Your task to perform on an android device: toggle data saver in the chrome app Image 0: 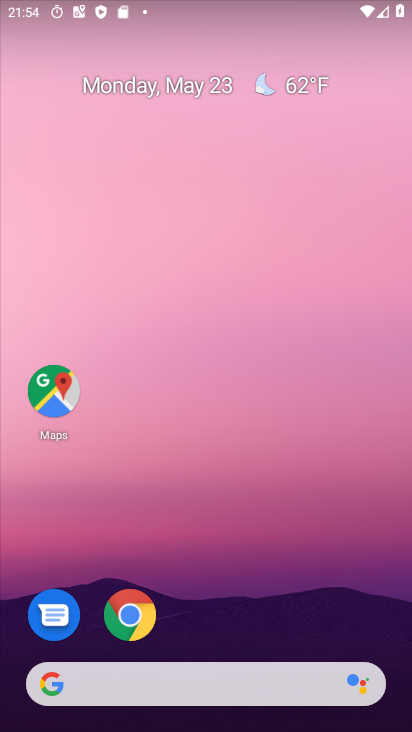
Step 0: click (123, 620)
Your task to perform on an android device: toggle data saver in the chrome app Image 1: 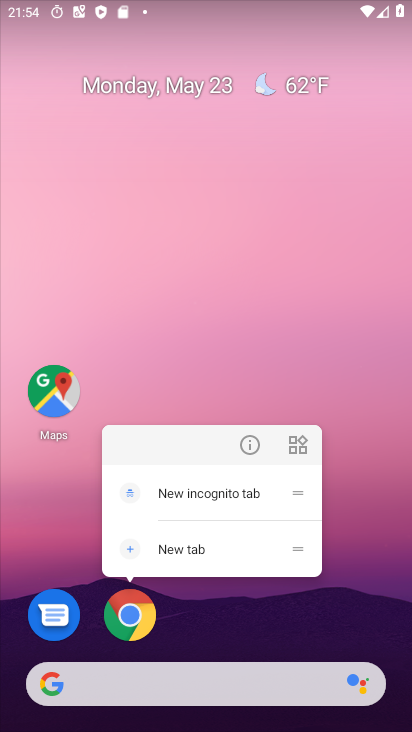
Step 1: click (139, 617)
Your task to perform on an android device: toggle data saver in the chrome app Image 2: 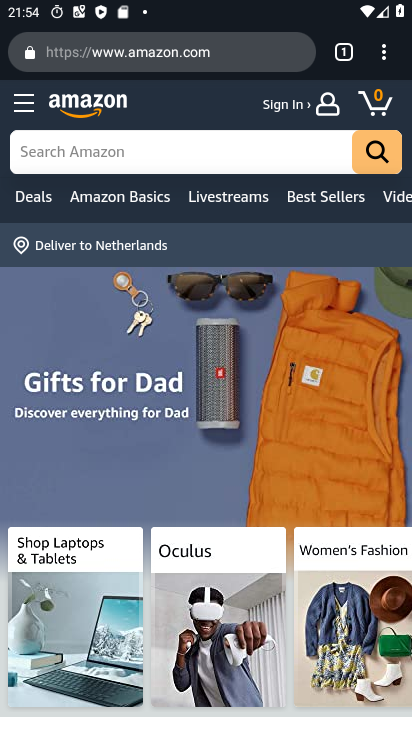
Step 2: click (377, 60)
Your task to perform on an android device: toggle data saver in the chrome app Image 3: 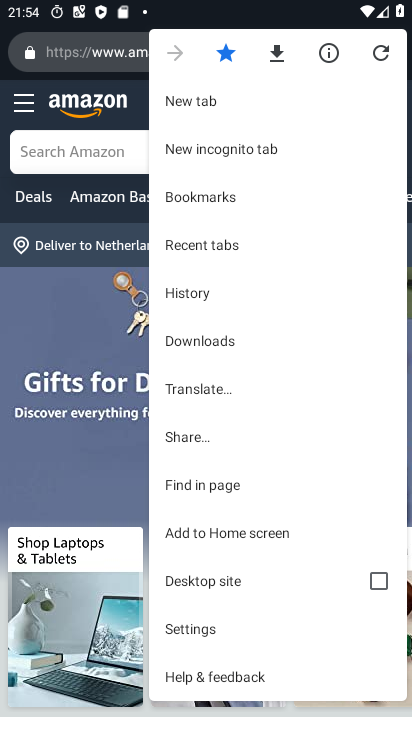
Step 3: click (202, 637)
Your task to perform on an android device: toggle data saver in the chrome app Image 4: 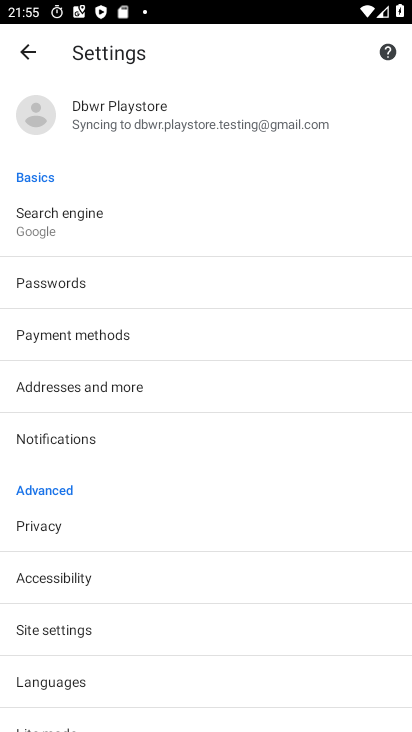
Step 4: drag from (168, 578) to (196, 238)
Your task to perform on an android device: toggle data saver in the chrome app Image 5: 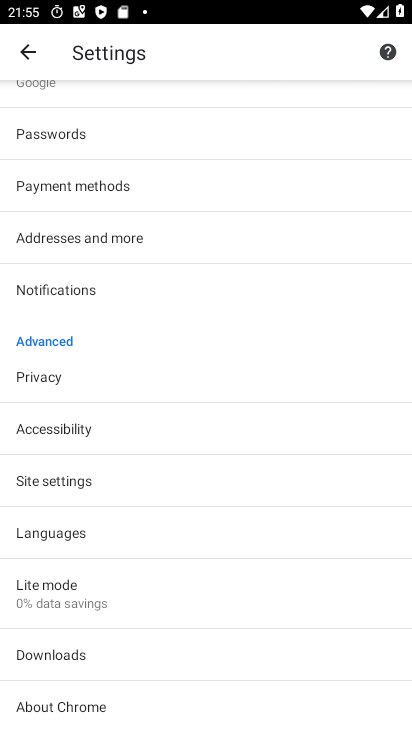
Step 5: click (88, 592)
Your task to perform on an android device: toggle data saver in the chrome app Image 6: 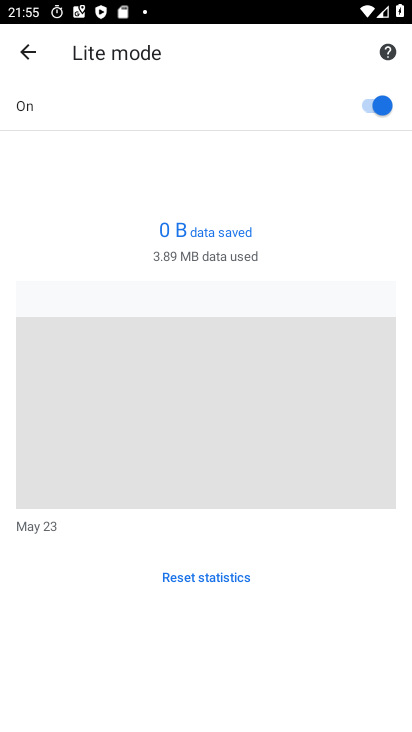
Step 6: click (376, 103)
Your task to perform on an android device: toggle data saver in the chrome app Image 7: 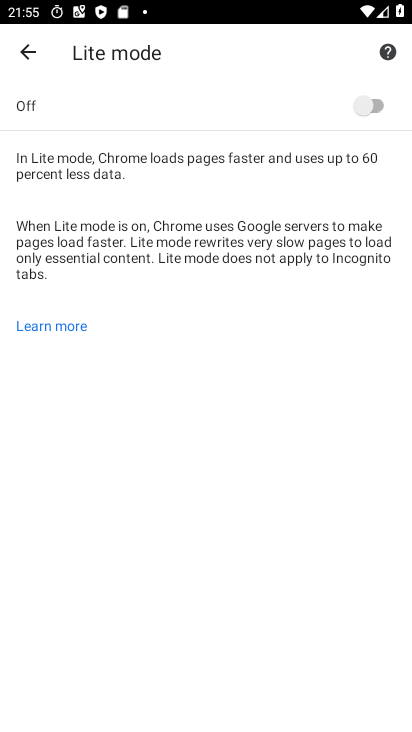
Step 7: task complete